Your task to perform on an android device: Find coffee shops on Maps Image 0: 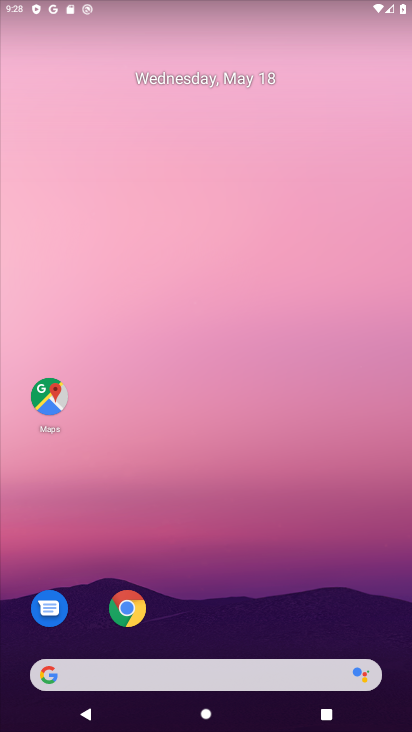
Step 0: click (55, 409)
Your task to perform on an android device: Find coffee shops on Maps Image 1: 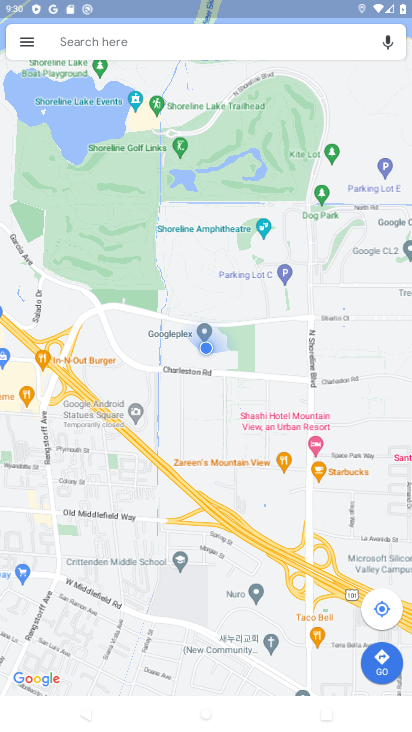
Step 1: click (189, 51)
Your task to perform on an android device: Find coffee shops on Maps Image 2: 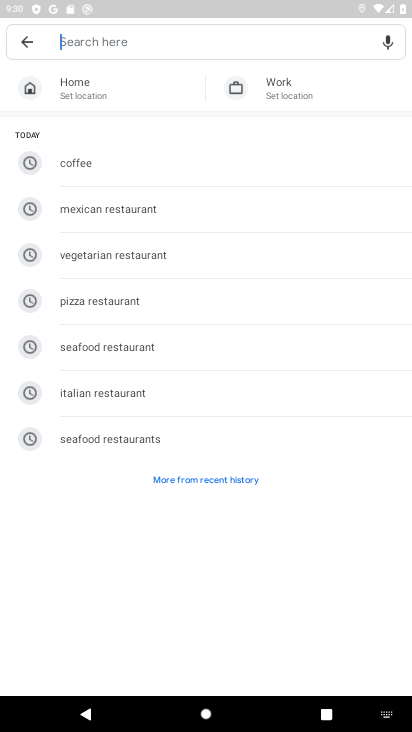
Step 2: click (78, 166)
Your task to perform on an android device: Find coffee shops on Maps Image 3: 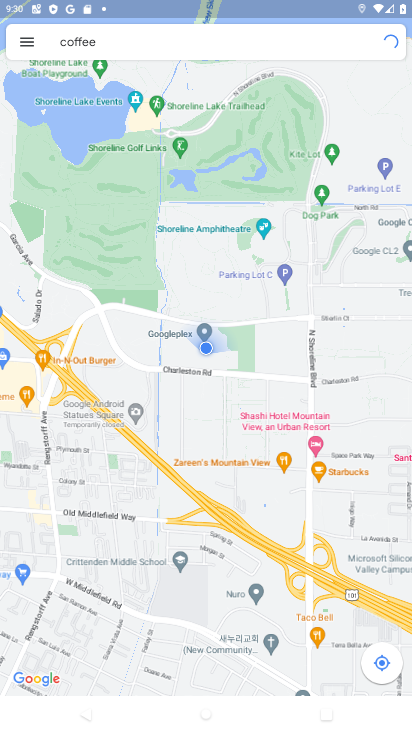
Step 3: task complete